Your task to perform on an android device: Open sound settings Image 0: 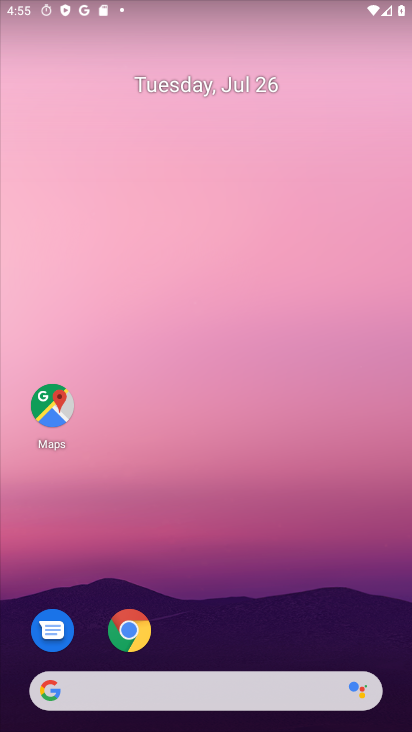
Step 0: press home button
Your task to perform on an android device: Open sound settings Image 1: 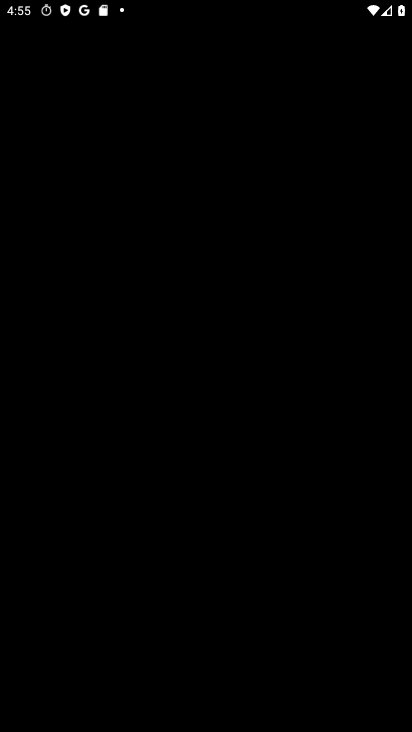
Step 1: click (236, 92)
Your task to perform on an android device: Open sound settings Image 2: 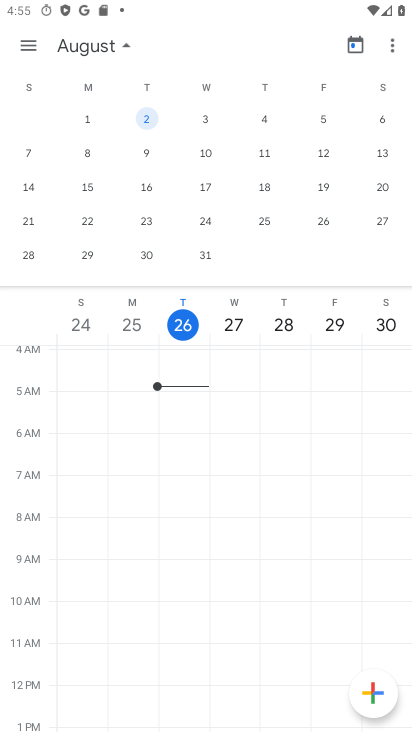
Step 2: press home button
Your task to perform on an android device: Open sound settings Image 3: 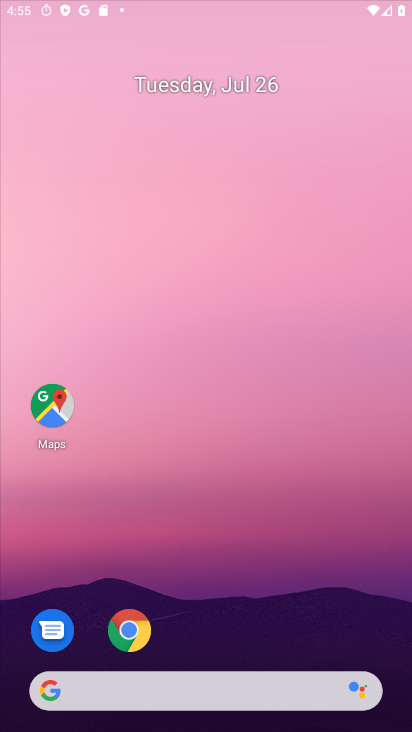
Step 3: drag from (317, 595) to (237, 43)
Your task to perform on an android device: Open sound settings Image 4: 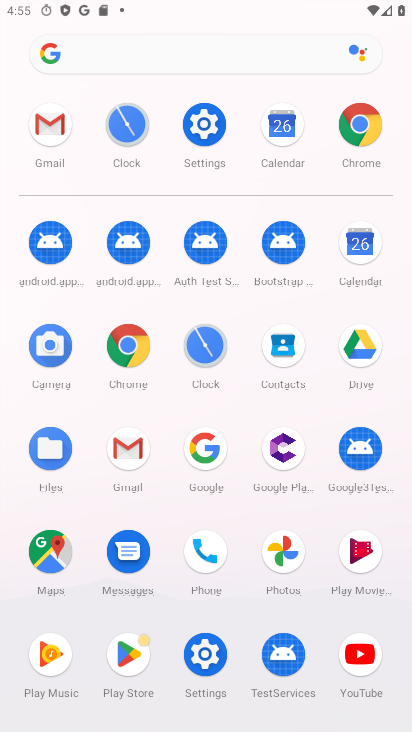
Step 4: click (213, 121)
Your task to perform on an android device: Open sound settings Image 5: 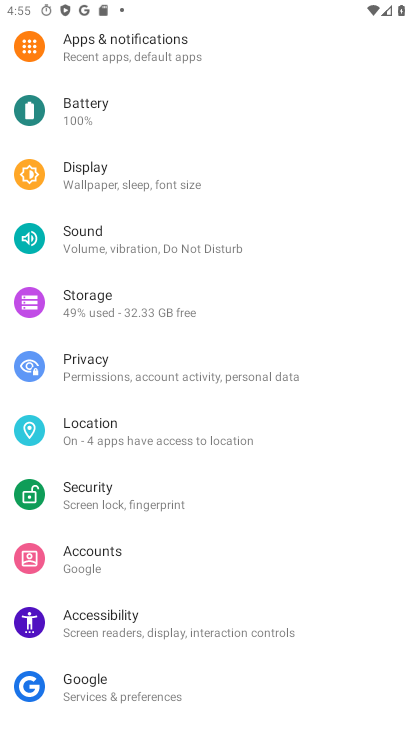
Step 5: click (120, 230)
Your task to perform on an android device: Open sound settings Image 6: 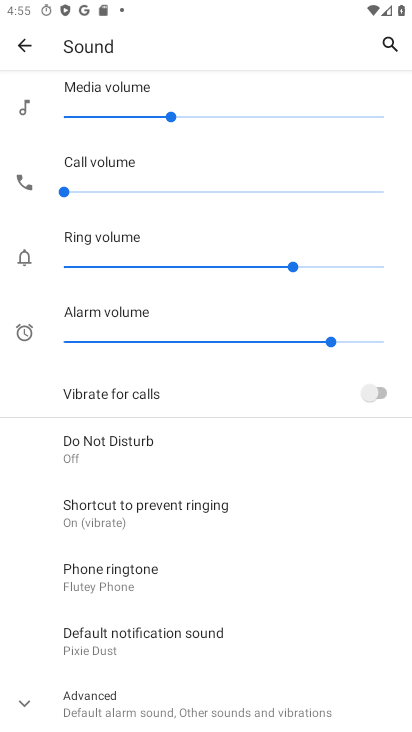
Step 6: task complete